Your task to perform on an android device: change the clock display to digital Image 0: 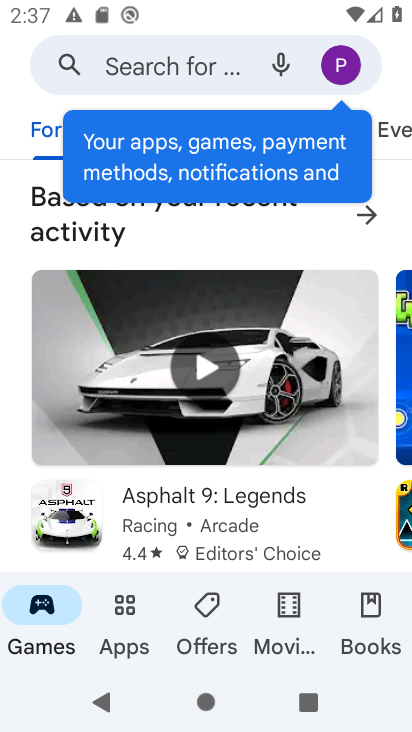
Step 0: press home button
Your task to perform on an android device: change the clock display to digital Image 1: 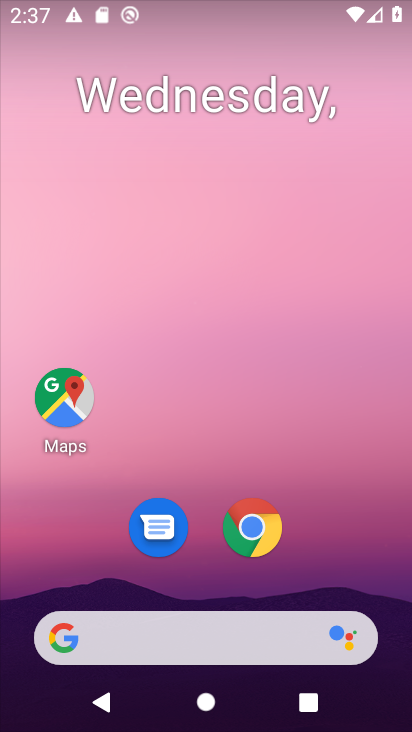
Step 1: drag from (209, 456) to (229, 5)
Your task to perform on an android device: change the clock display to digital Image 2: 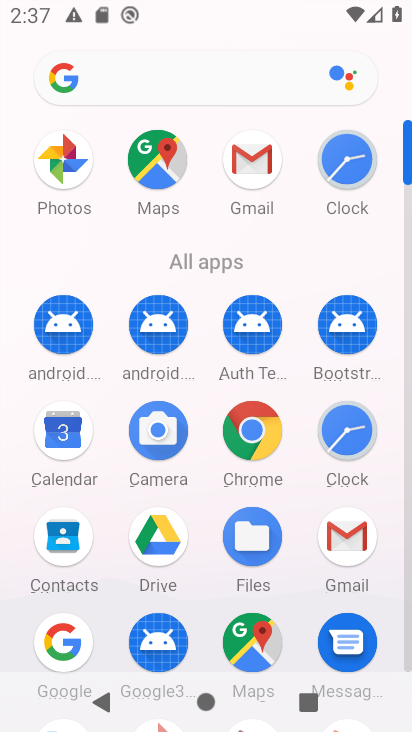
Step 2: click (351, 425)
Your task to perform on an android device: change the clock display to digital Image 3: 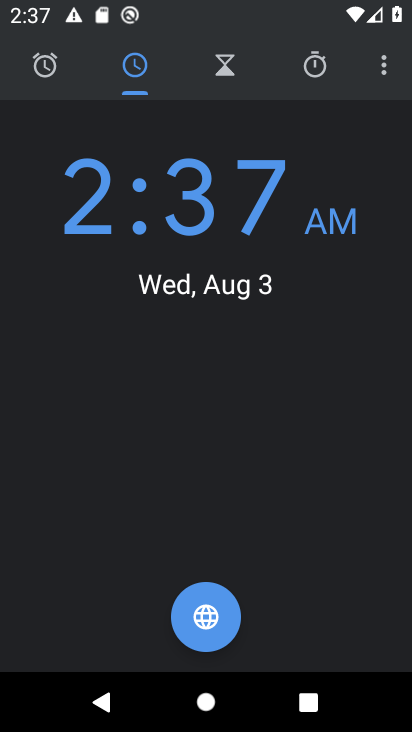
Step 3: click (390, 60)
Your task to perform on an android device: change the clock display to digital Image 4: 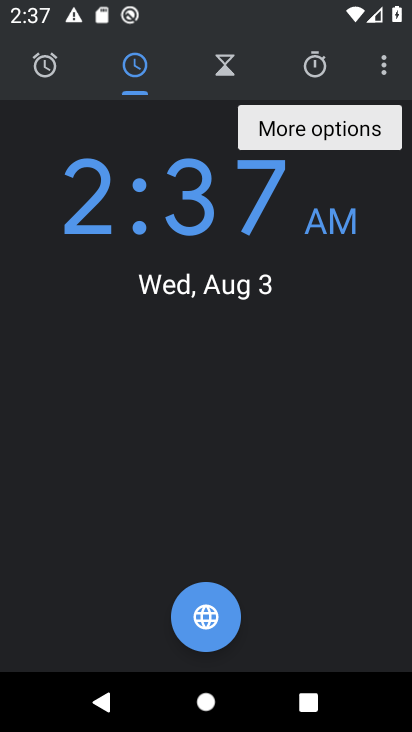
Step 4: click (390, 60)
Your task to perform on an android device: change the clock display to digital Image 5: 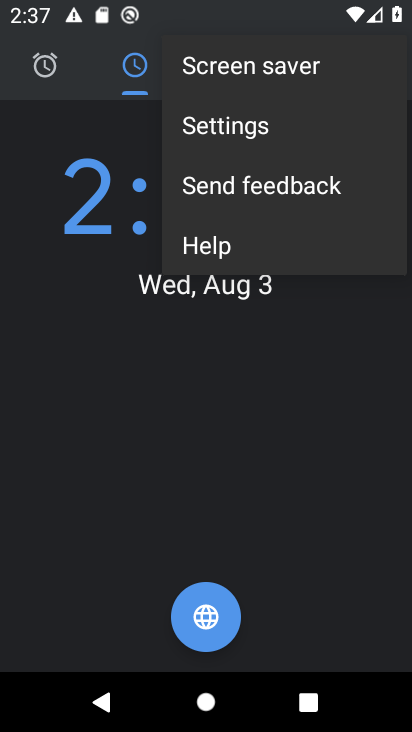
Step 5: click (283, 130)
Your task to perform on an android device: change the clock display to digital Image 6: 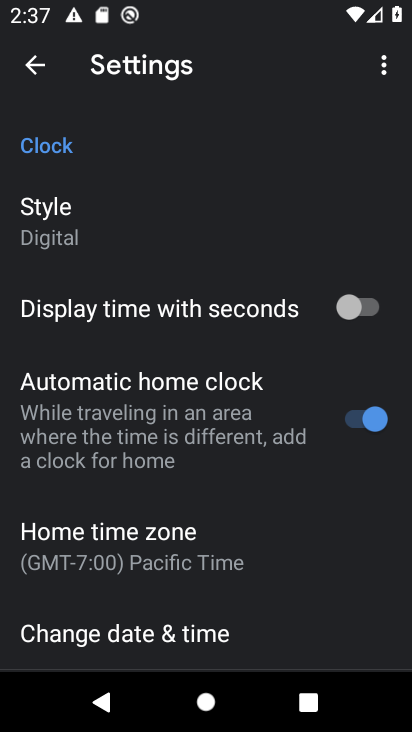
Step 6: task complete